Your task to perform on an android device: turn pop-ups off in chrome Image 0: 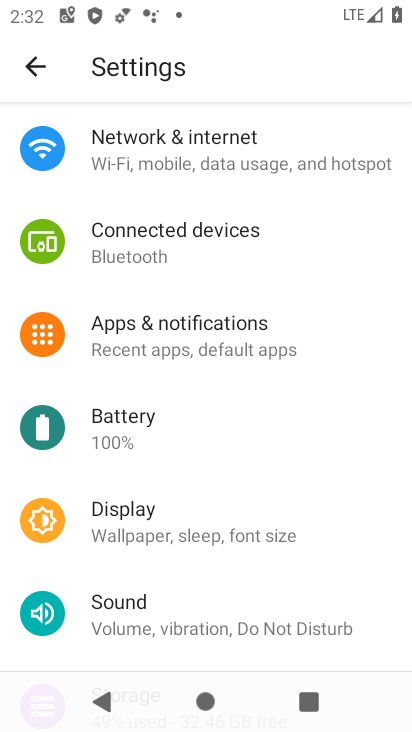
Step 0: press home button
Your task to perform on an android device: turn pop-ups off in chrome Image 1: 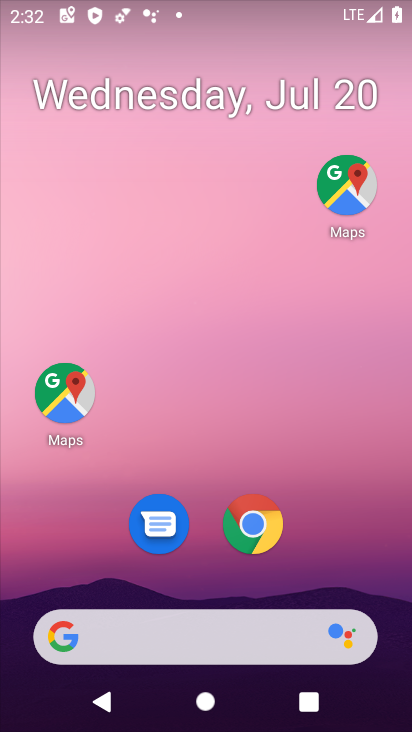
Step 1: click (246, 525)
Your task to perform on an android device: turn pop-ups off in chrome Image 2: 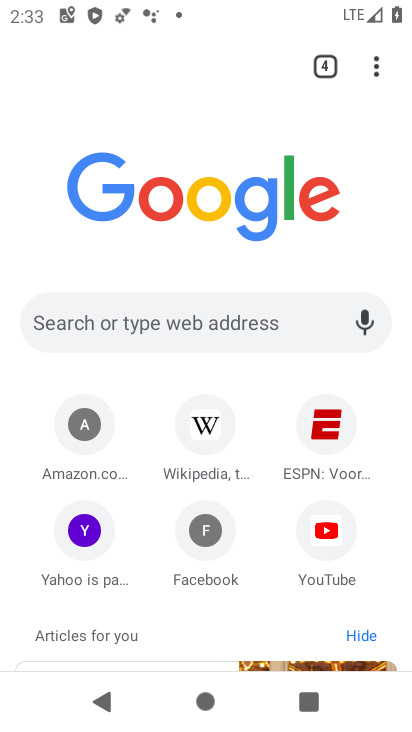
Step 2: click (372, 71)
Your task to perform on an android device: turn pop-ups off in chrome Image 3: 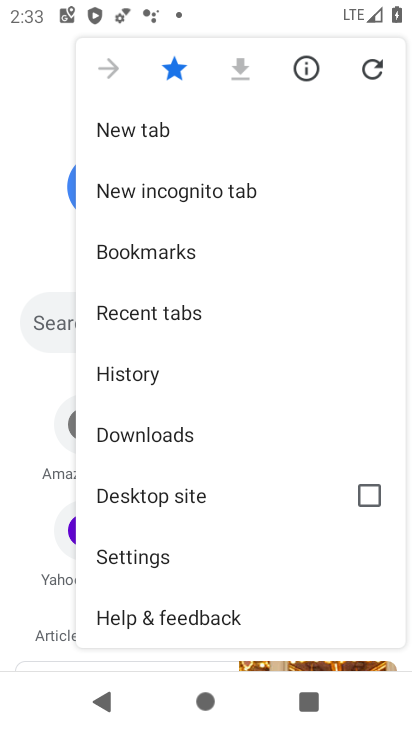
Step 3: click (167, 553)
Your task to perform on an android device: turn pop-ups off in chrome Image 4: 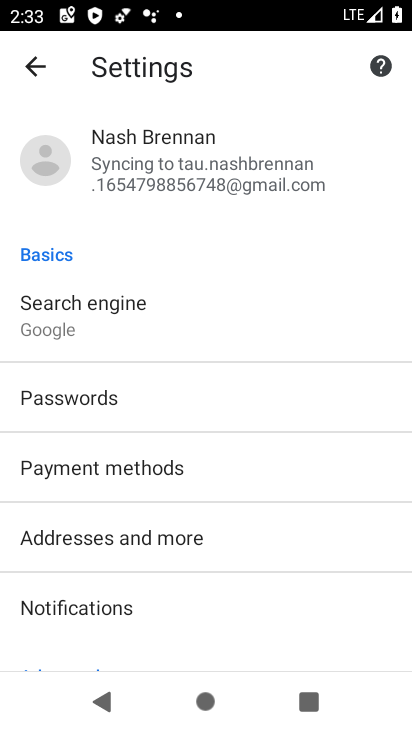
Step 4: drag from (214, 548) to (250, 252)
Your task to perform on an android device: turn pop-ups off in chrome Image 5: 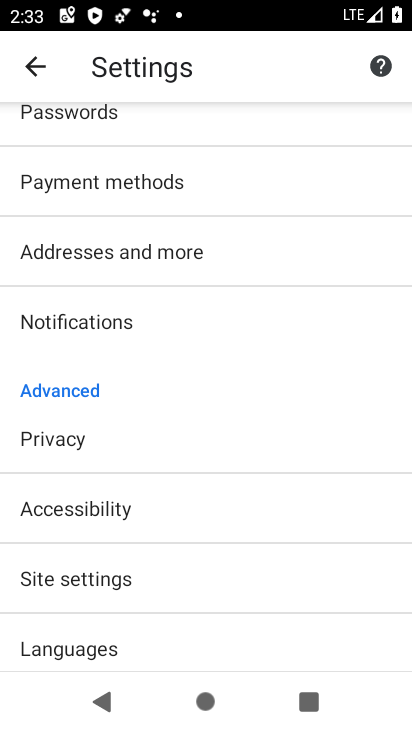
Step 5: click (116, 581)
Your task to perform on an android device: turn pop-ups off in chrome Image 6: 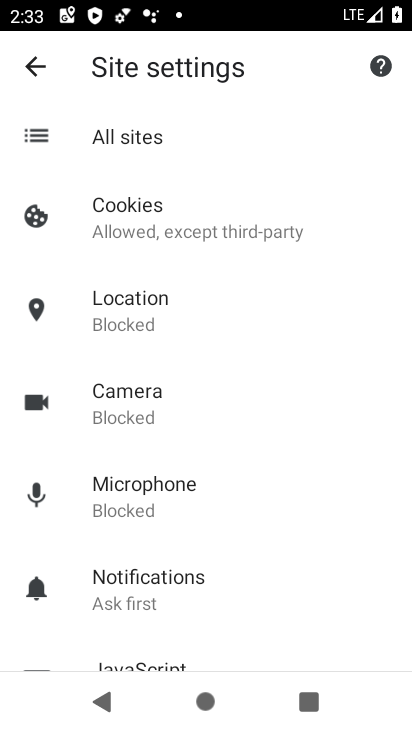
Step 6: drag from (252, 442) to (275, 191)
Your task to perform on an android device: turn pop-ups off in chrome Image 7: 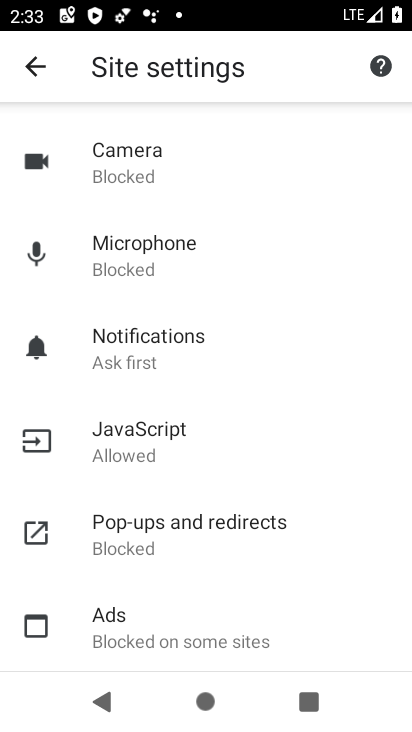
Step 7: click (231, 519)
Your task to perform on an android device: turn pop-ups off in chrome Image 8: 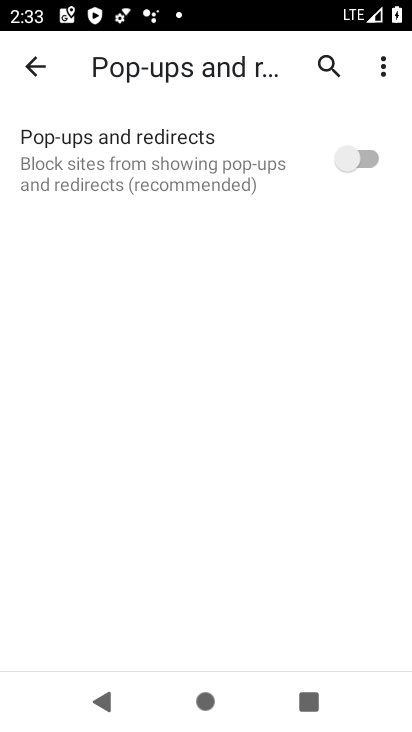
Step 8: task complete